Your task to perform on an android device: open a bookmark in the chrome app Image 0: 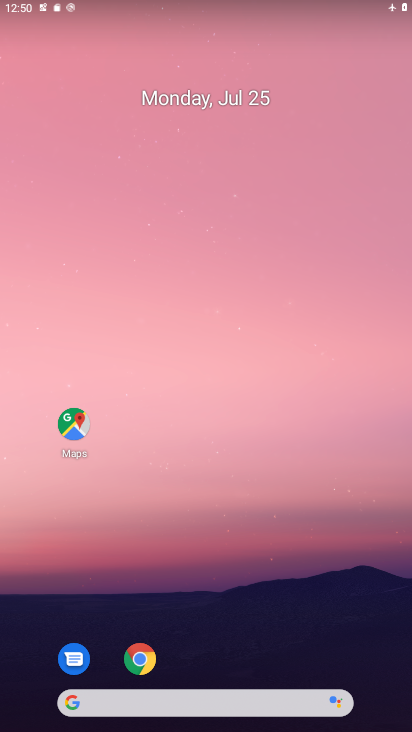
Step 0: click (142, 660)
Your task to perform on an android device: open a bookmark in the chrome app Image 1: 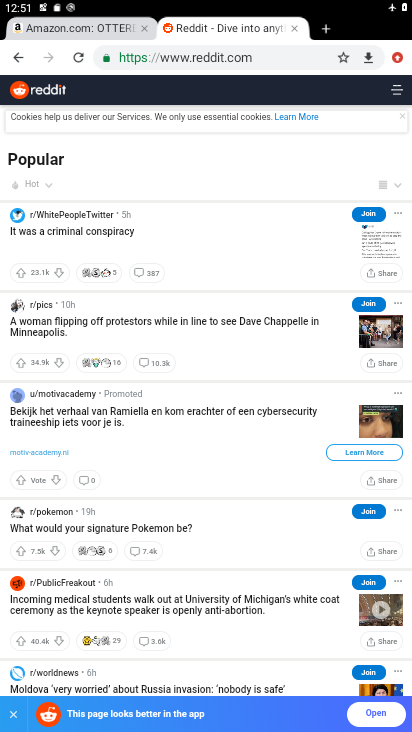
Step 1: click (399, 52)
Your task to perform on an android device: open a bookmark in the chrome app Image 2: 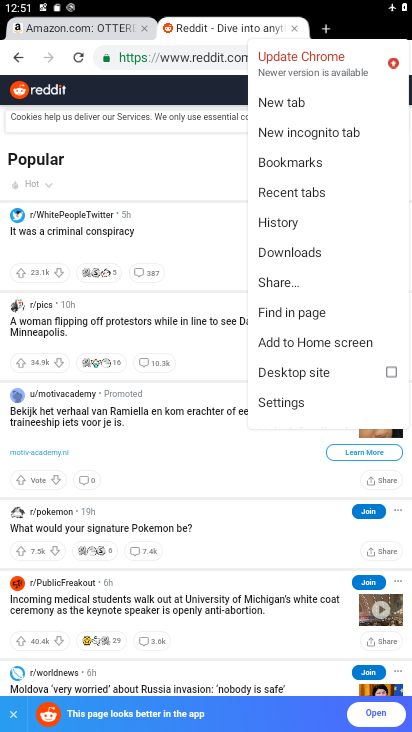
Step 2: click (319, 162)
Your task to perform on an android device: open a bookmark in the chrome app Image 3: 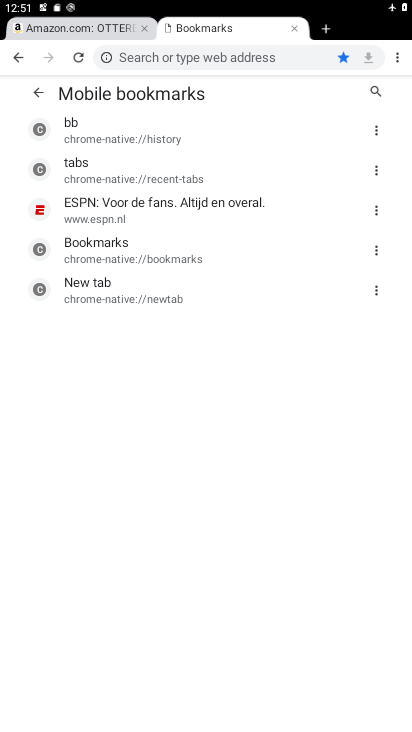
Step 3: click (113, 204)
Your task to perform on an android device: open a bookmark in the chrome app Image 4: 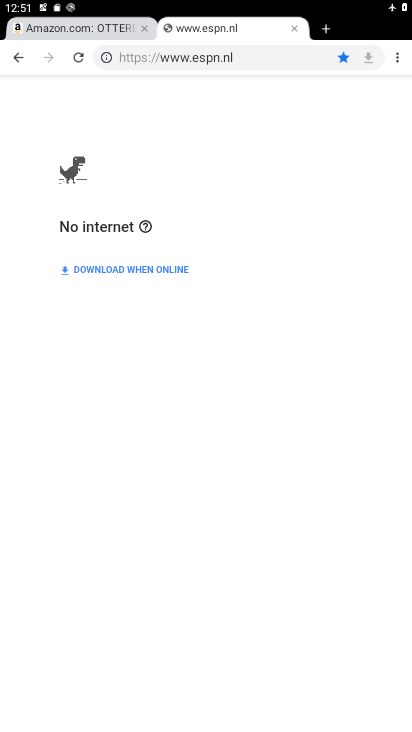
Step 4: task complete